Your task to perform on an android device: Open Maps and search for coffee Image 0: 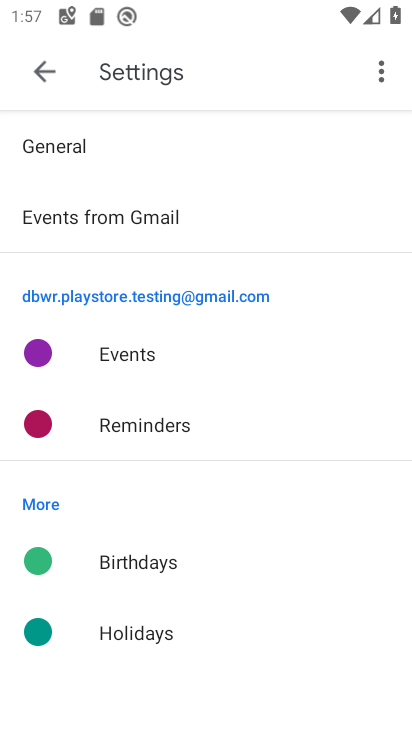
Step 0: press home button
Your task to perform on an android device: Open Maps and search for coffee Image 1: 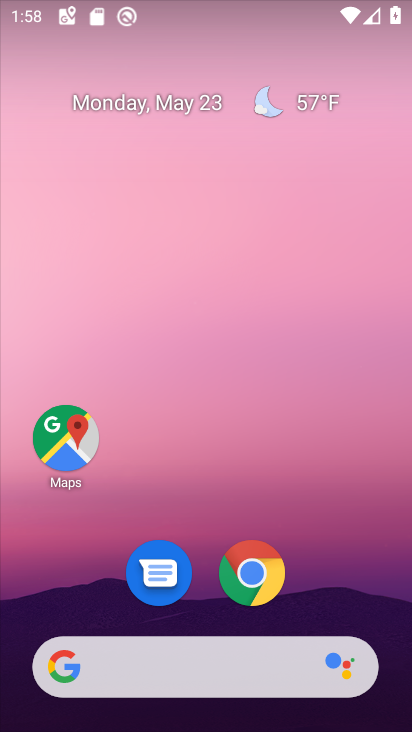
Step 1: click (57, 432)
Your task to perform on an android device: Open Maps and search for coffee Image 2: 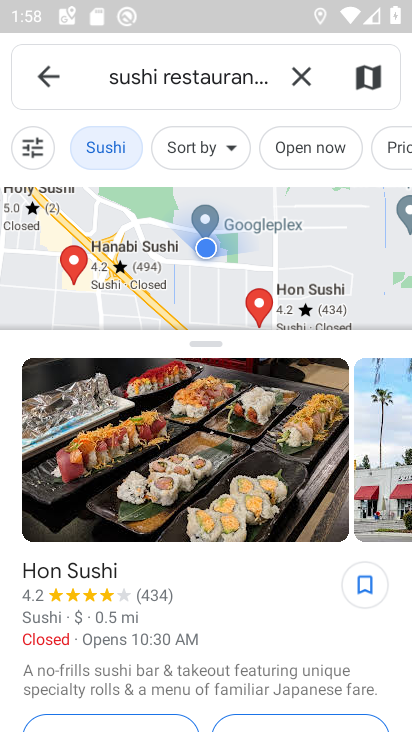
Step 2: click (299, 77)
Your task to perform on an android device: Open Maps and search for coffee Image 3: 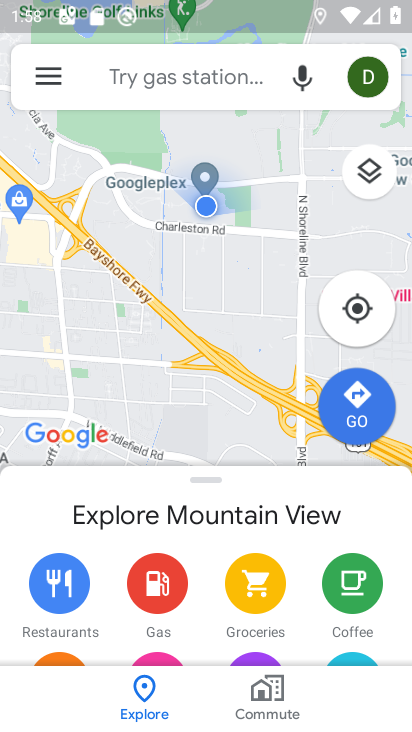
Step 3: click (164, 72)
Your task to perform on an android device: Open Maps and search for coffee Image 4: 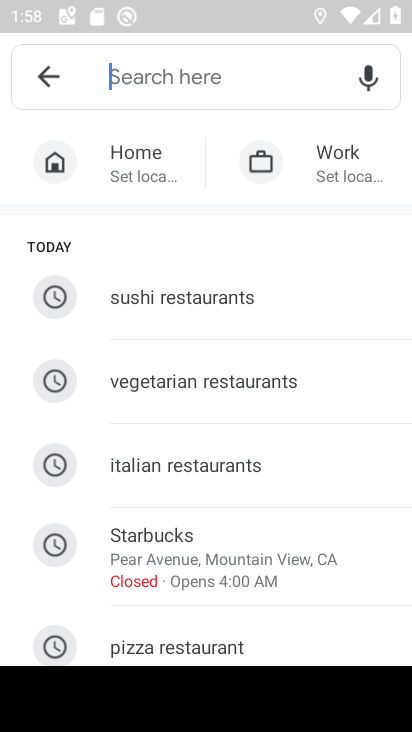
Step 4: drag from (257, 519) to (243, 217)
Your task to perform on an android device: Open Maps and search for coffee Image 5: 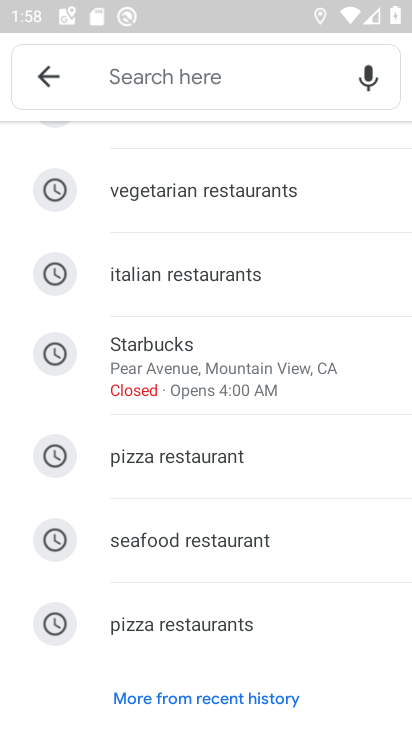
Step 5: click (217, 698)
Your task to perform on an android device: Open Maps and search for coffee Image 6: 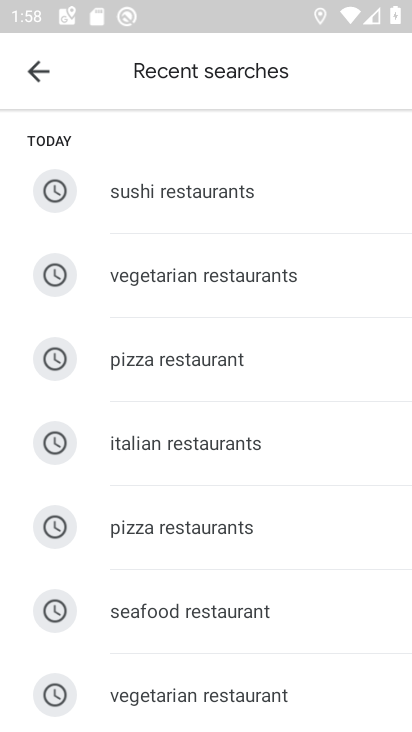
Step 6: drag from (241, 618) to (234, 146)
Your task to perform on an android device: Open Maps and search for coffee Image 7: 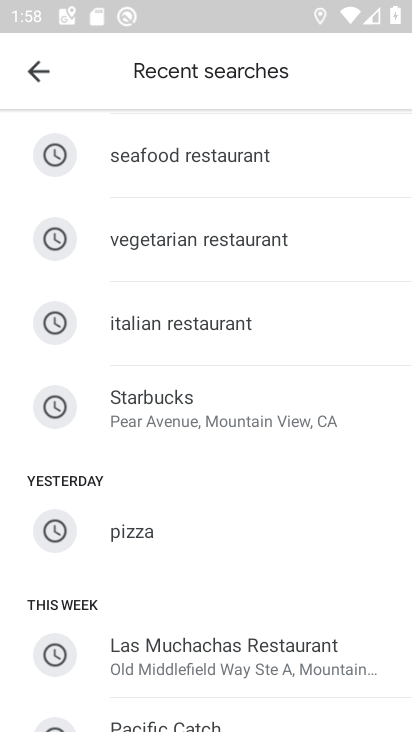
Step 7: drag from (209, 474) to (199, 72)
Your task to perform on an android device: Open Maps and search for coffee Image 8: 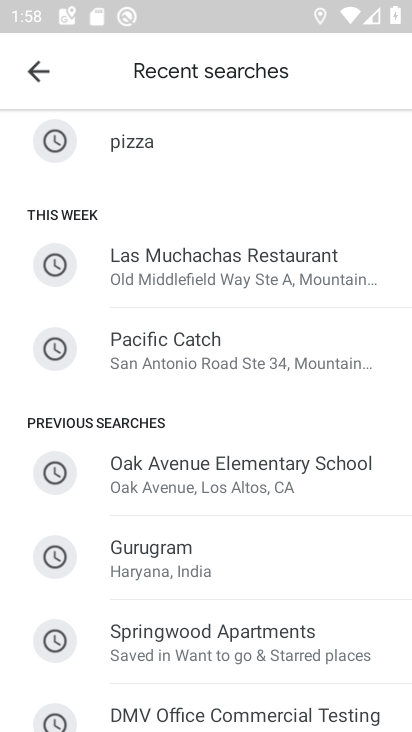
Step 8: drag from (177, 621) to (179, 265)
Your task to perform on an android device: Open Maps and search for coffee Image 9: 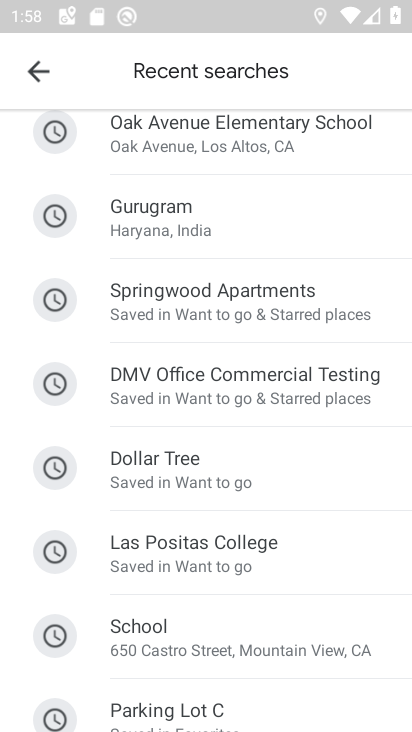
Step 9: press back button
Your task to perform on an android device: Open Maps and search for coffee Image 10: 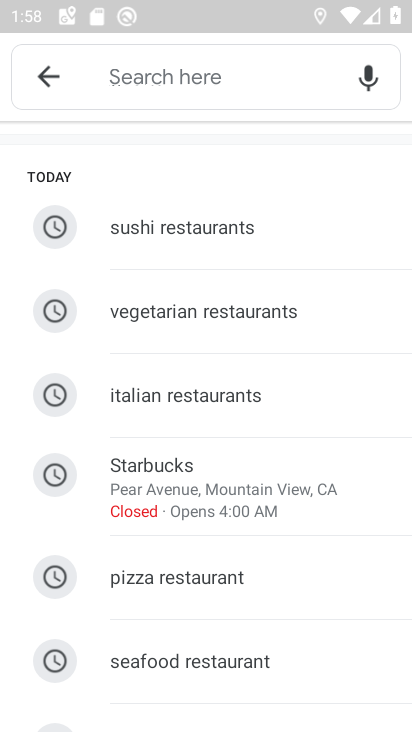
Step 10: press back button
Your task to perform on an android device: Open Maps and search for coffee Image 11: 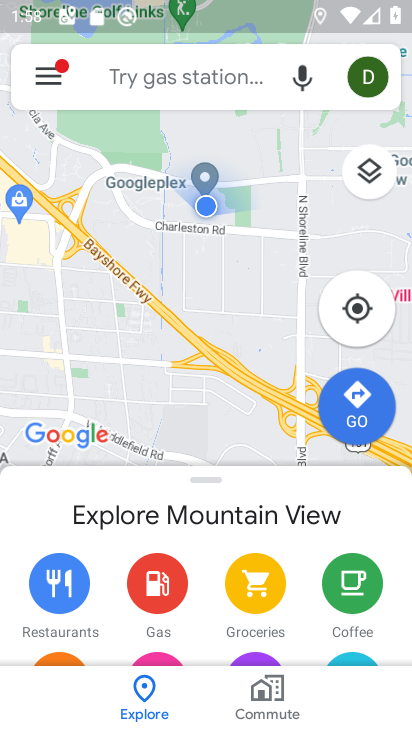
Step 11: click (36, 73)
Your task to perform on an android device: Open Maps and search for coffee Image 12: 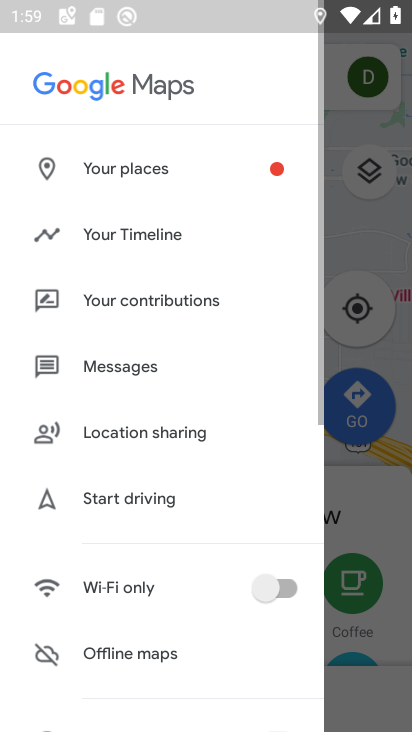
Step 12: click (109, 80)
Your task to perform on an android device: Open Maps and search for coffee Image 13: 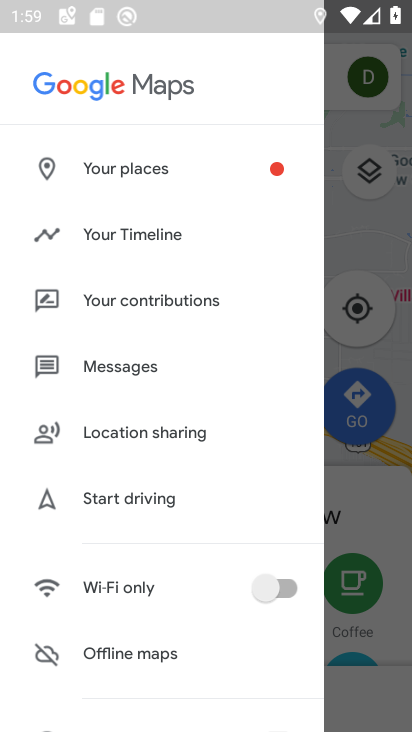
Step 13: press back button
Your task to perform on an android device: Open Maps and search for coffee Image 14: 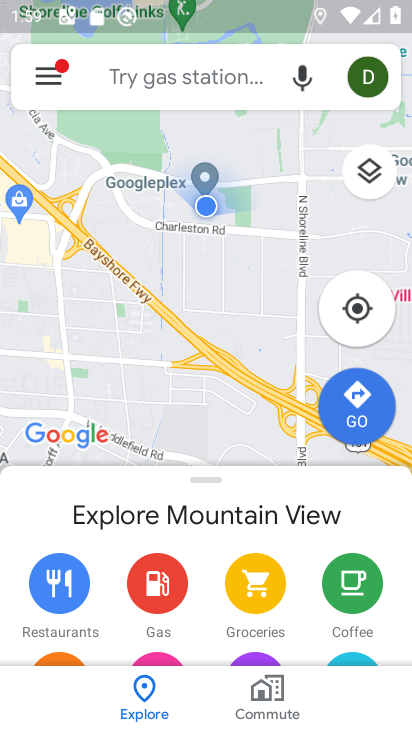
Step 14: click (154, 69)
Your task to perform on an android device: Open Maps and search for coffee Image 15: 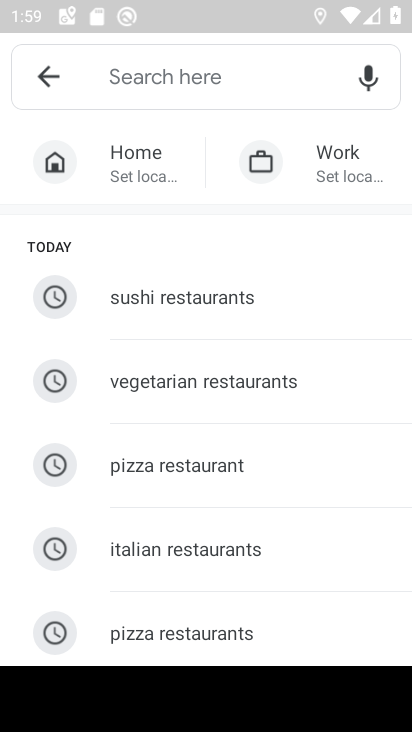
Step 15: type "Coffee"
Your task to perform on an android device: Open Maps and search for coffee Image 16: 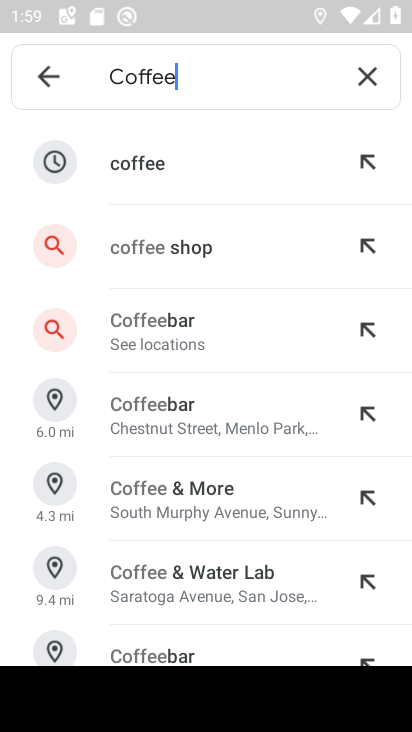
Step 16: click (201, 155)
Your task to perform on an android device: Open Maps and search for coffee Image 17: 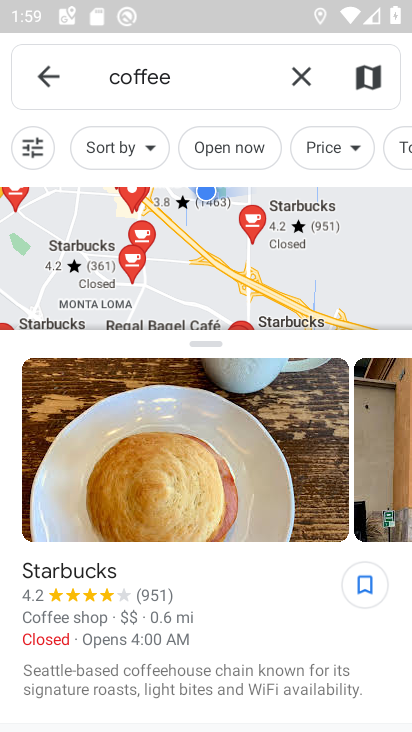
Step 17: task complete